Your task to perform on an android device: uninstall "Yahoo Mail" Image 0: 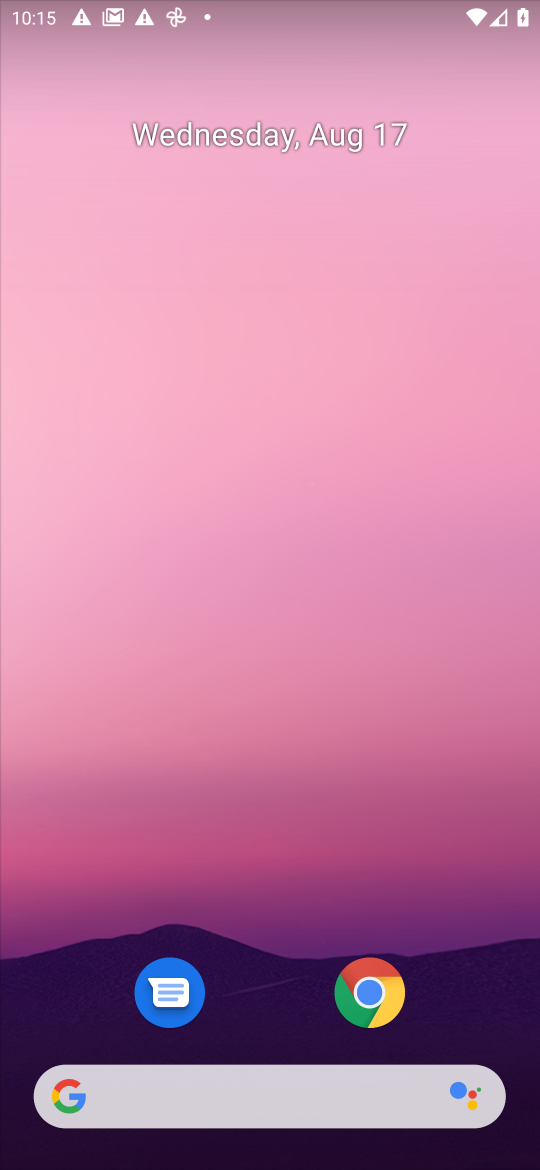
Step 0: drag from (478, 1021) to (254, 35)
Your task to perform on an android device: uninstall "Yahoo Mail" Image 1: 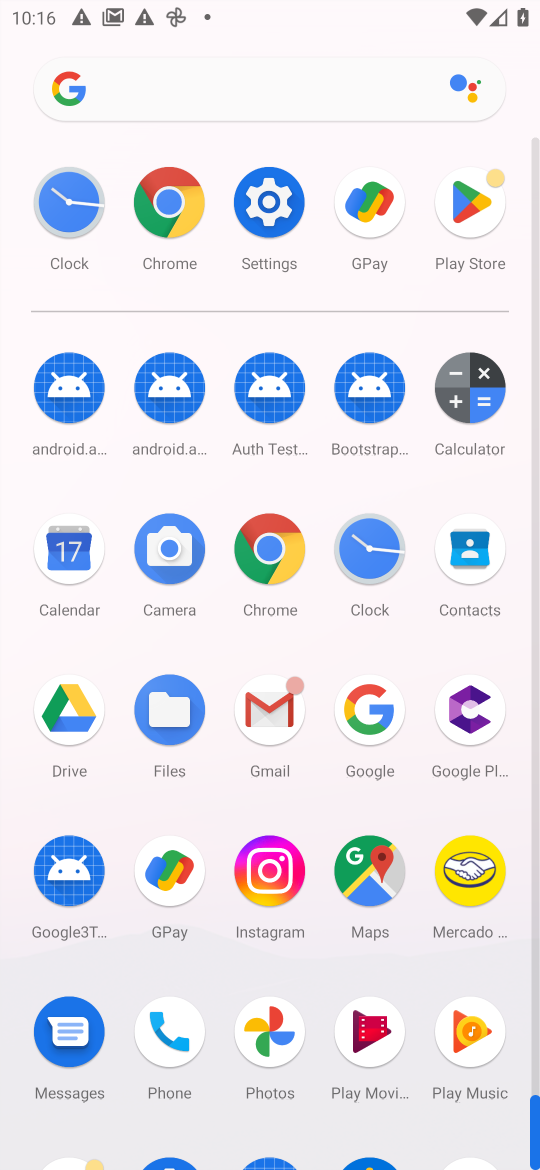
Step 1: click (480, 193)
Your task to perform on an android device: uninstall "Yahoo Mail" Image 2: 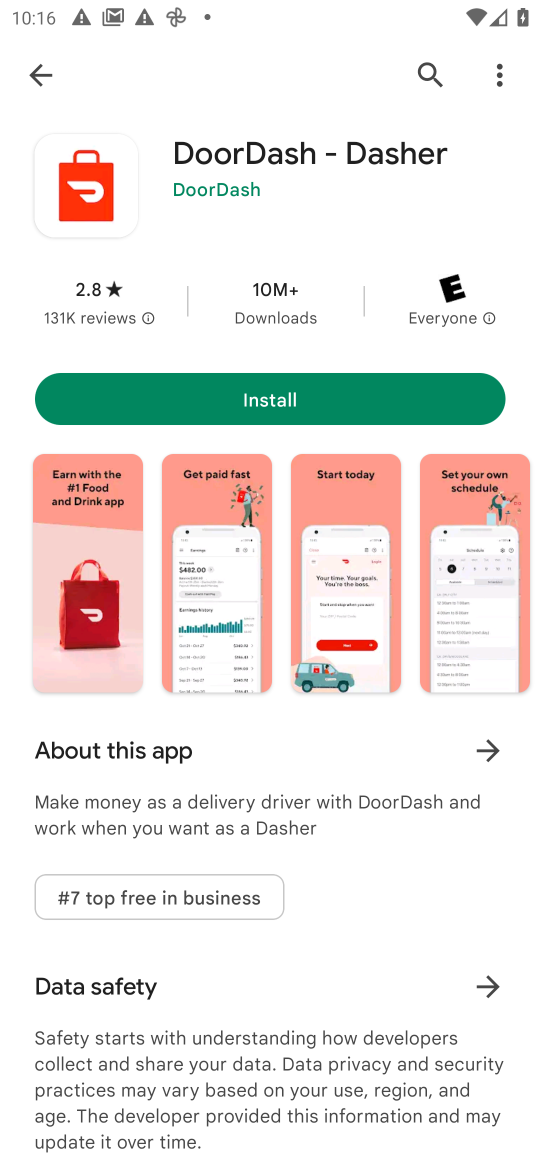
Step 2: press back button
Your task to perform on an android device: uninstall "Yahoo Mail" Image 3: 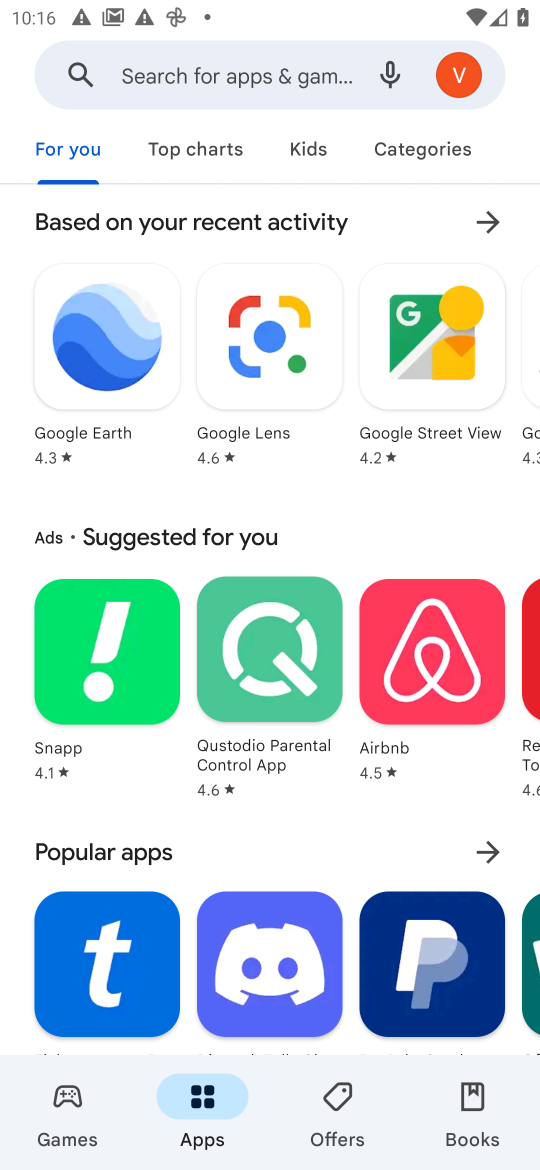
Step 3: click (214, 65)
Your task to perform on an android device: uninstall "Yahoo Mail" Image 4: 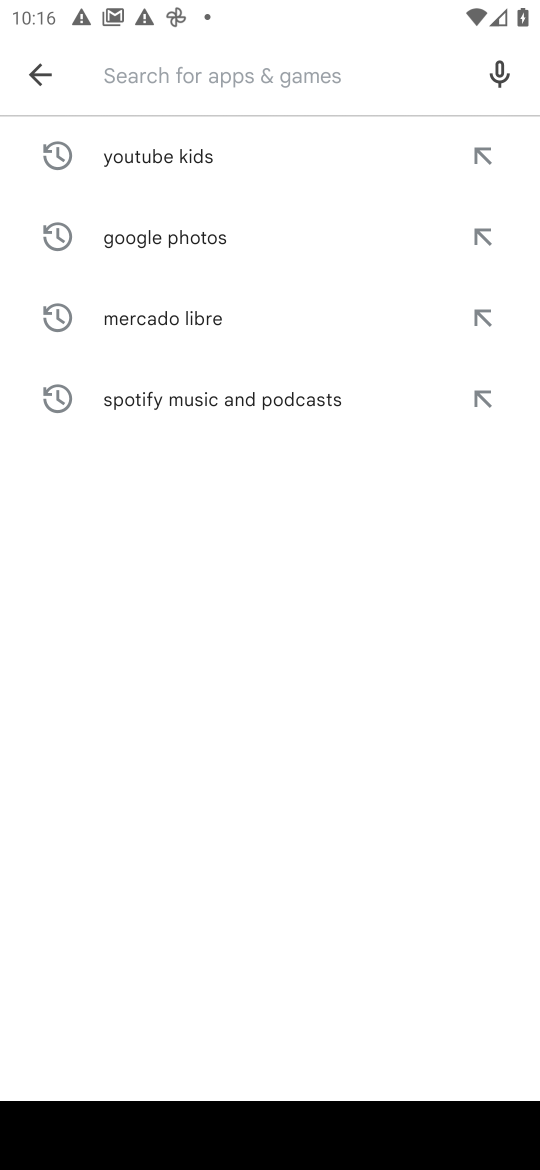
Step 4: type "Yahoo Mail"
Your task to perform on an android device: uninstall "Yahoo Mail" Image 5: 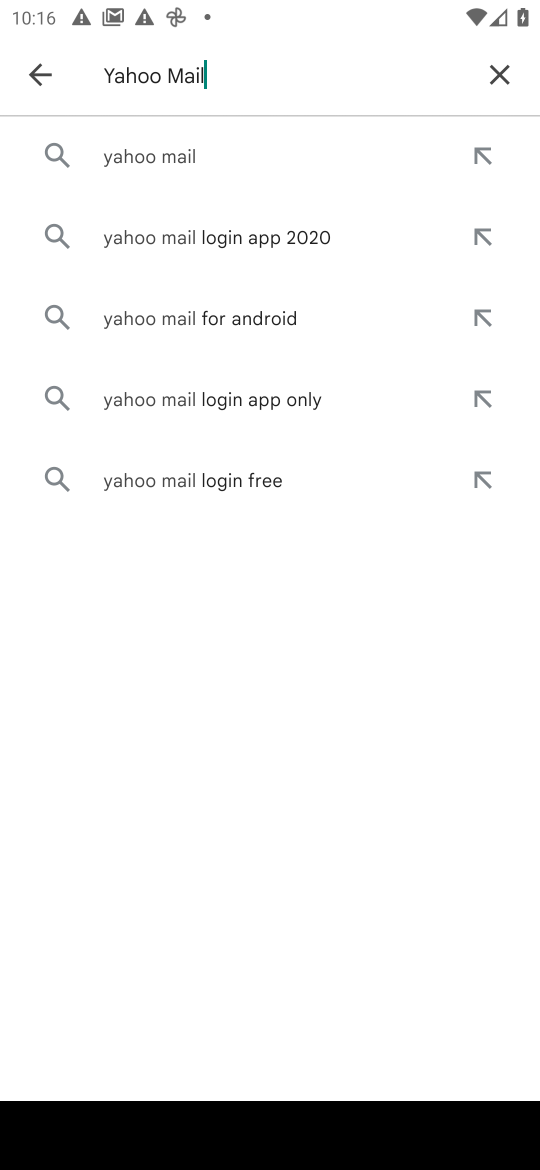
Step 5: click (177, 154)
Your task to perform on an android device: uninstall "Yahoo Mail" Image 6: 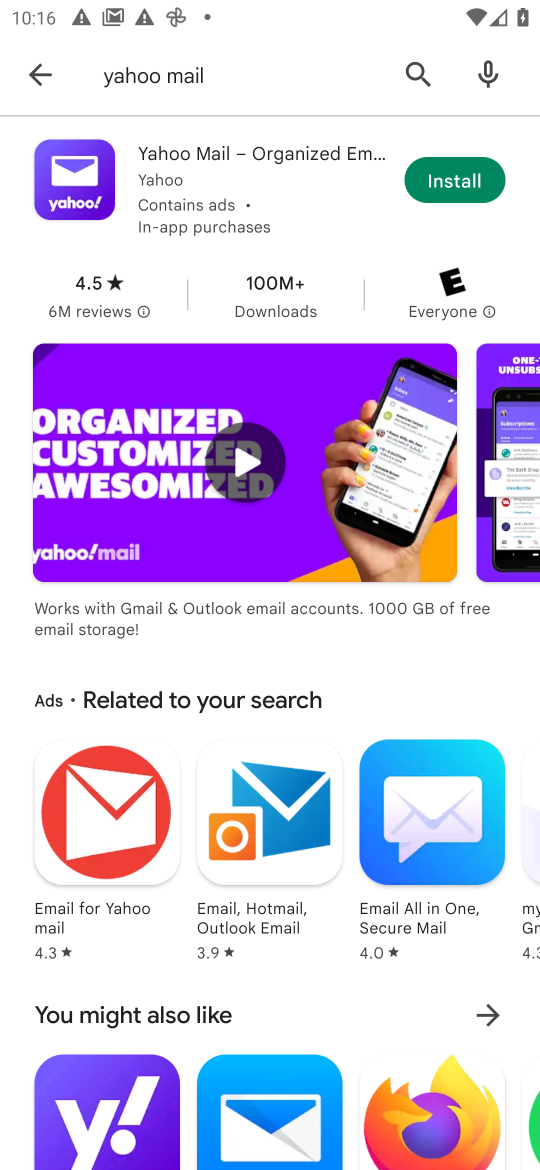
Step 6: task complete